Your task to perform on an android device: Show the shopping cart on walmart.com. Search for "macbook pro" on walmart.com, select the first entry, and add it to the cart. Image 0: 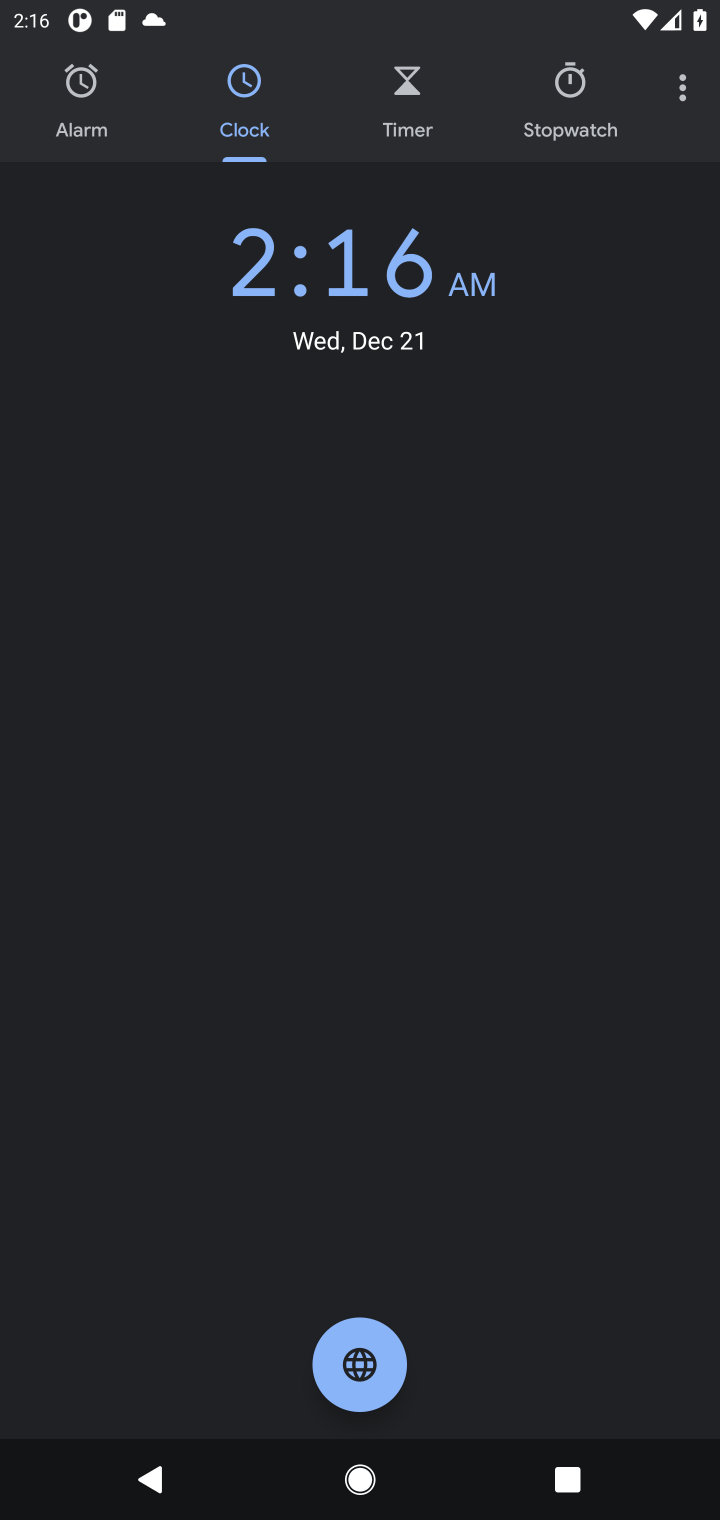
Step 0: press home button
Your task to perform on an android device: Show the shopping cart on walmart.com. Search for "macbook pro" on walmart.com, select the first entry, and add it to the cart. Image 1: 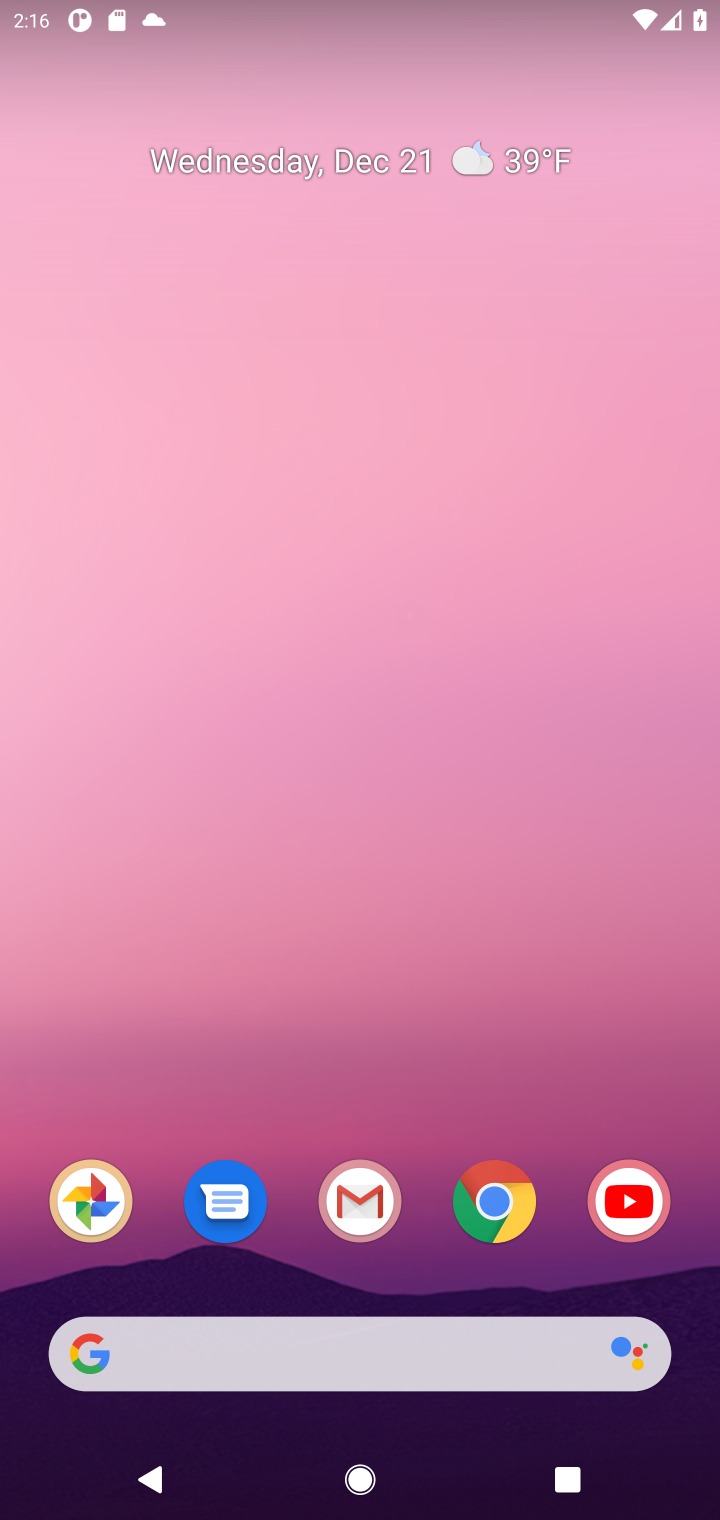
Step 1: click (496, 1204)
Your task to perform on an android device: Show the shopping cart on walmart.com. Search for "macbook pro" on walmart.com, select the first entry, and add it to the cart. Image 2: 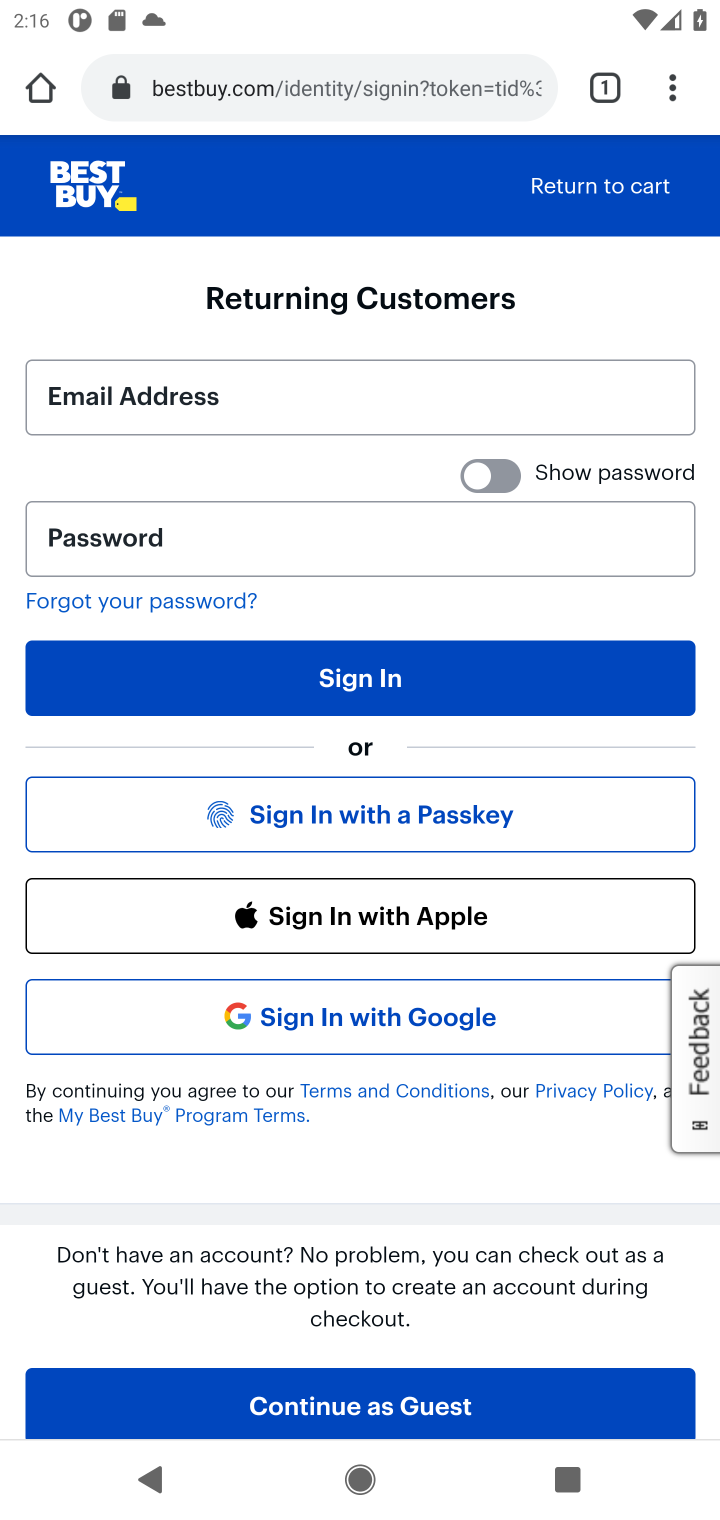
Step 2: click (265, 81)
Your task to perform on an android device: Show the shopping cart on walmart.com. Search for "macbook pro" on walmart.com, select the first entry, and add it to the cart. Image 3: 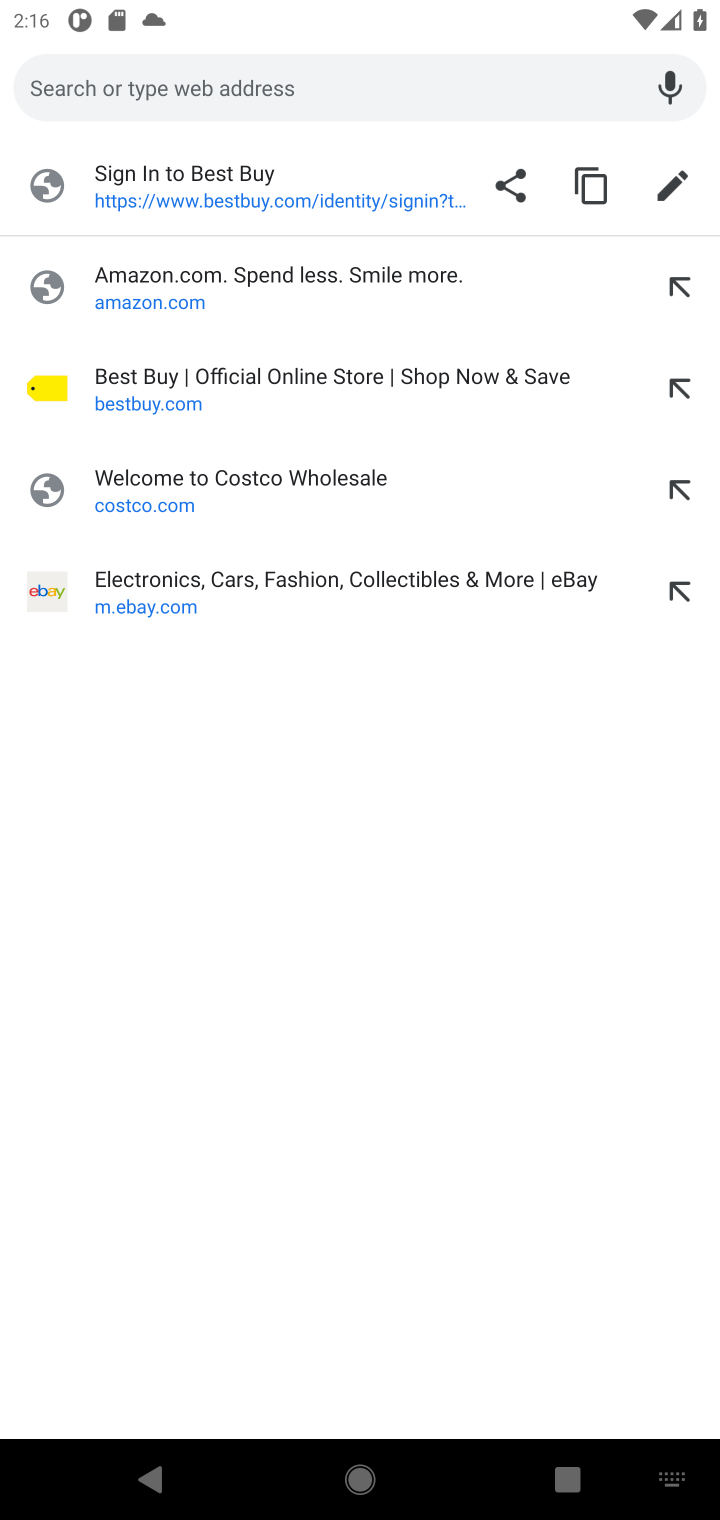
Step 3: type "walmart.com"
Your task to perform on an android device: Show the shopping cart on walmart.com. Search for "macbook pro" on walmart.com, select the first entry, and add it to the cart. Image 4: 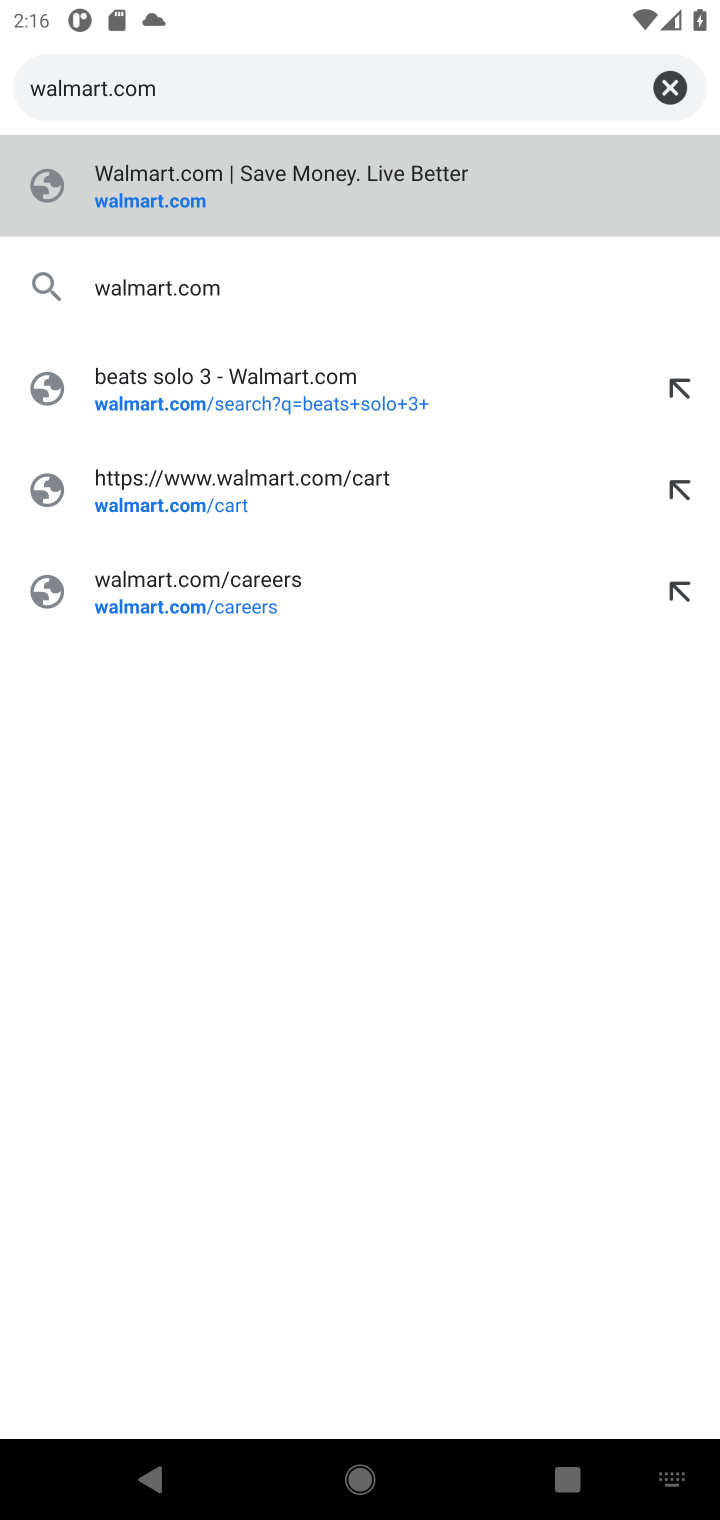
Step 4: click (181, 207)
Your task to perform on an android device: Show the shopping cart on walmart.com. Search for "macbook pro" on walmart.com, select the first entry, and add it to the cart. Image 5: 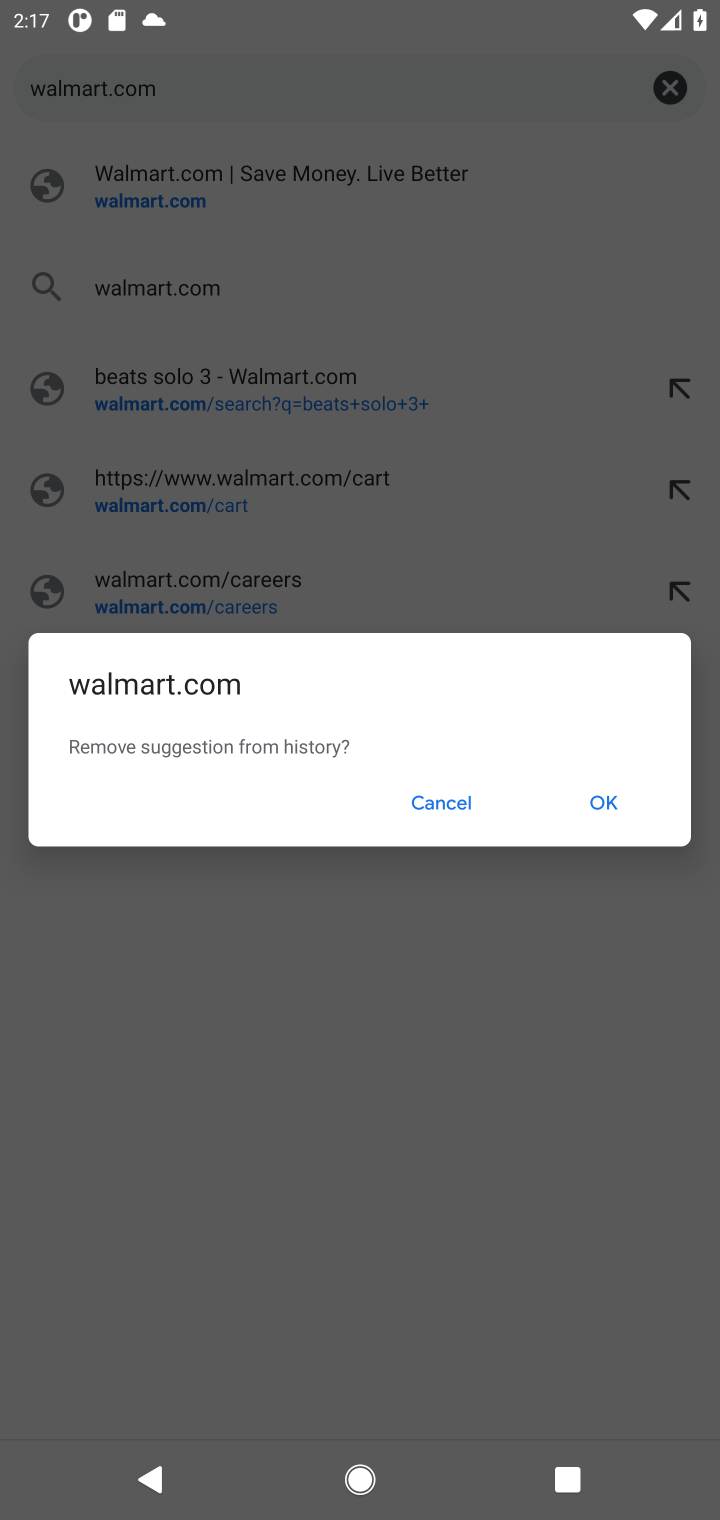
Step 5: click (438, 806)
Your task to perform on an android device: Show the shopping cart on walmart.com. Search for "macbook pro" on walmart.com, select the first entry, and add it to the cart. Image 6: 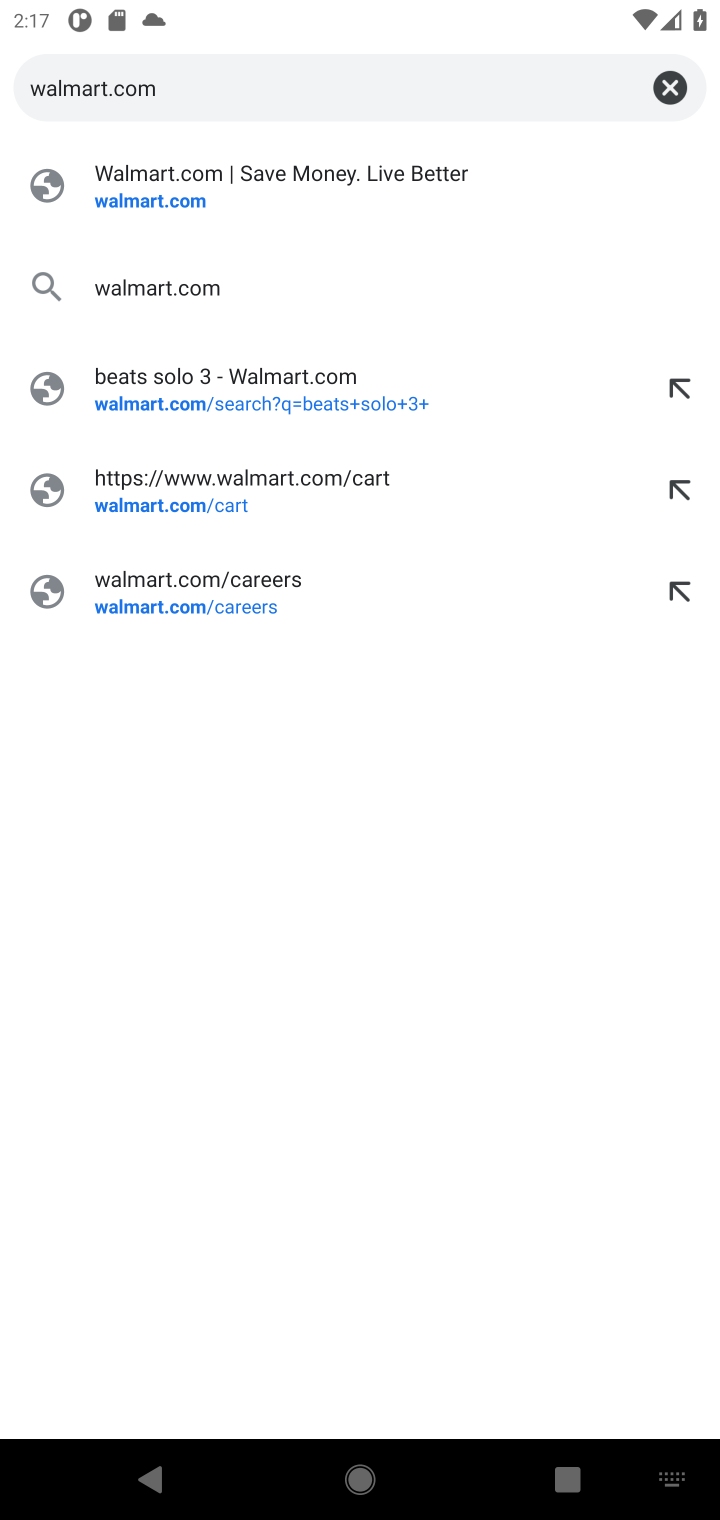
Step 6: click (114, 202)
Your task to perform on an android device: Show the shopping cart on walmart.com. Search for "macbook pro" on walmart.com, select the first entry, and add it to the cart. Image 7: 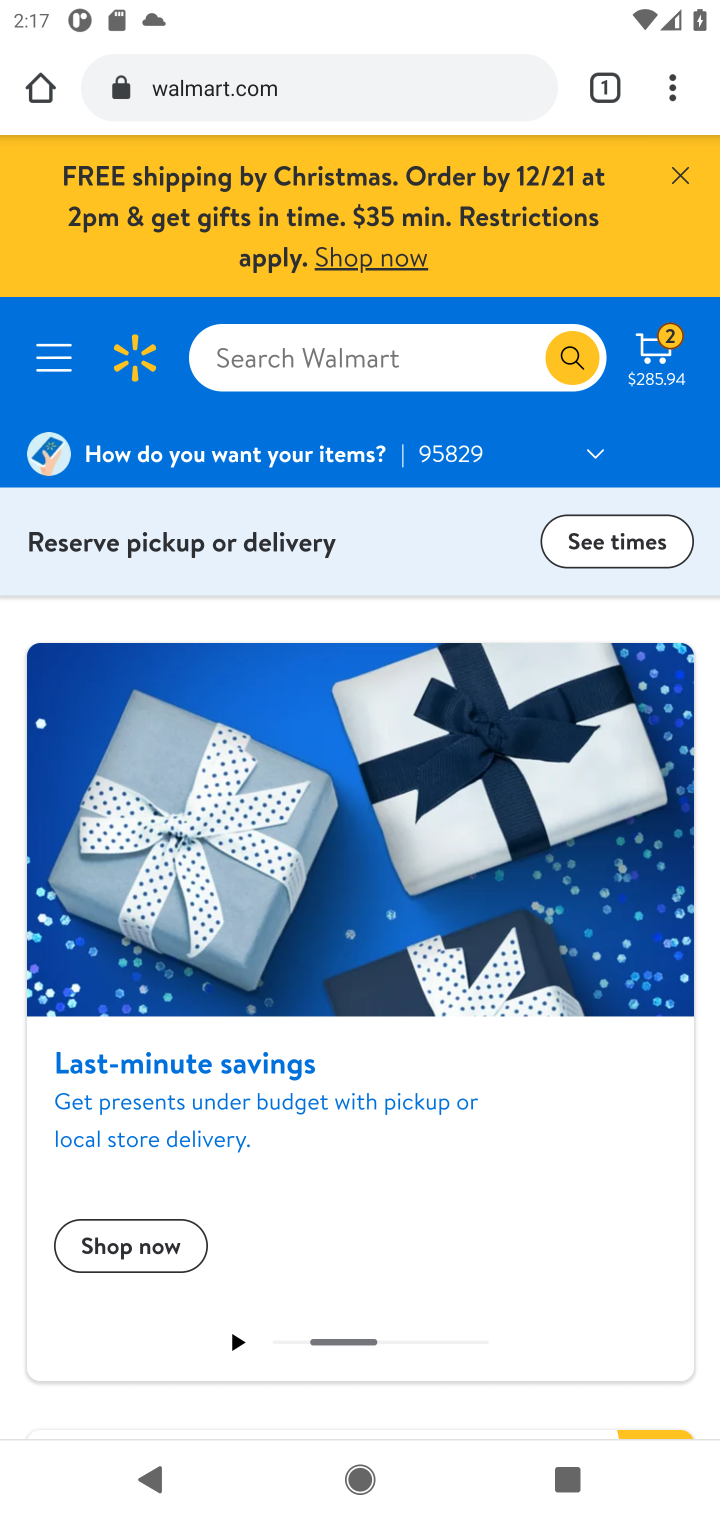
Step 7: click (649, 365)
Your task to perform on an android device: Show the shopping cart on walmart.com. Search for "macbook pro" on walmart.com, select the first entry, and add it to the cart. Image 8: 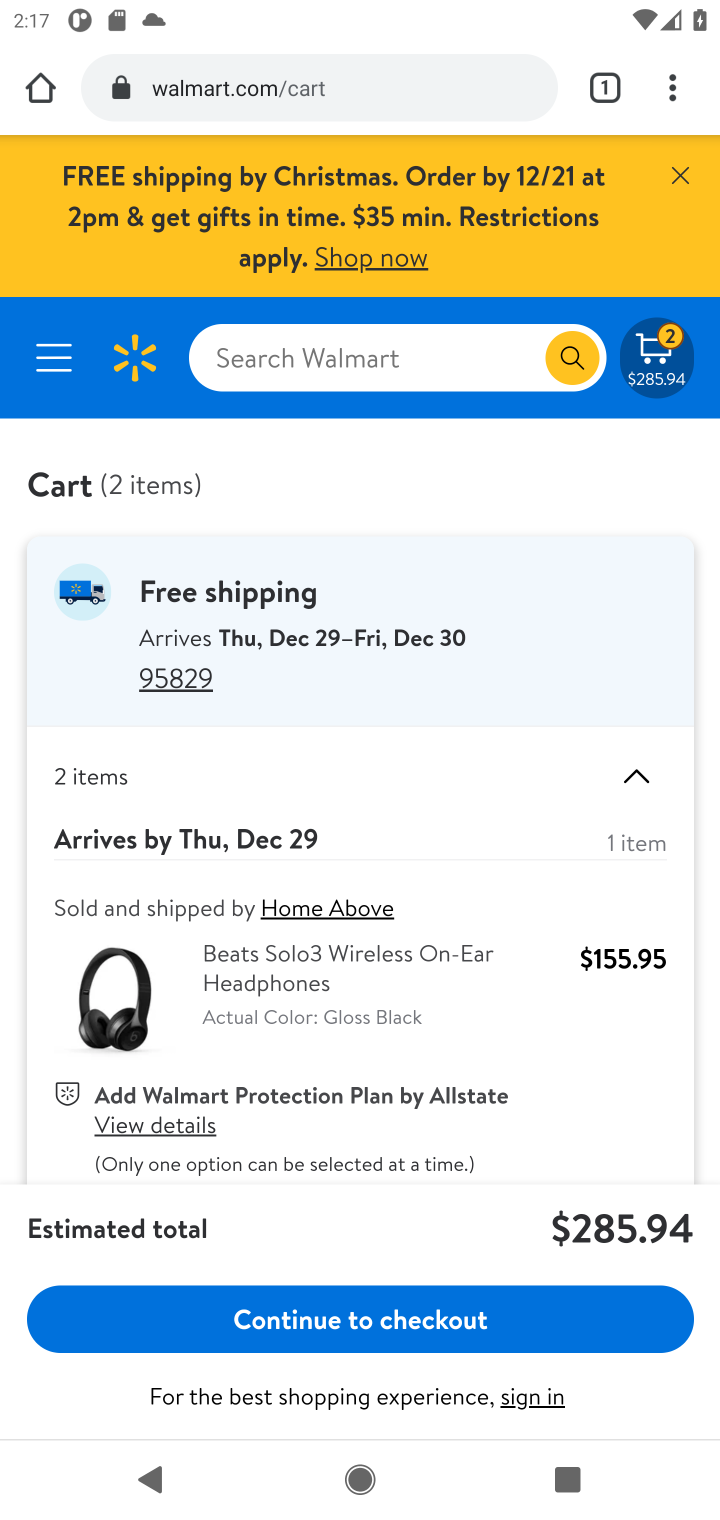
Step 8: click (279, 363)
Your task to perform on an android device: Show the shopping cart on walmart.com. Search for "macbook pro" on walmart.com, select the first entry, and add it to the cart. Image 9: 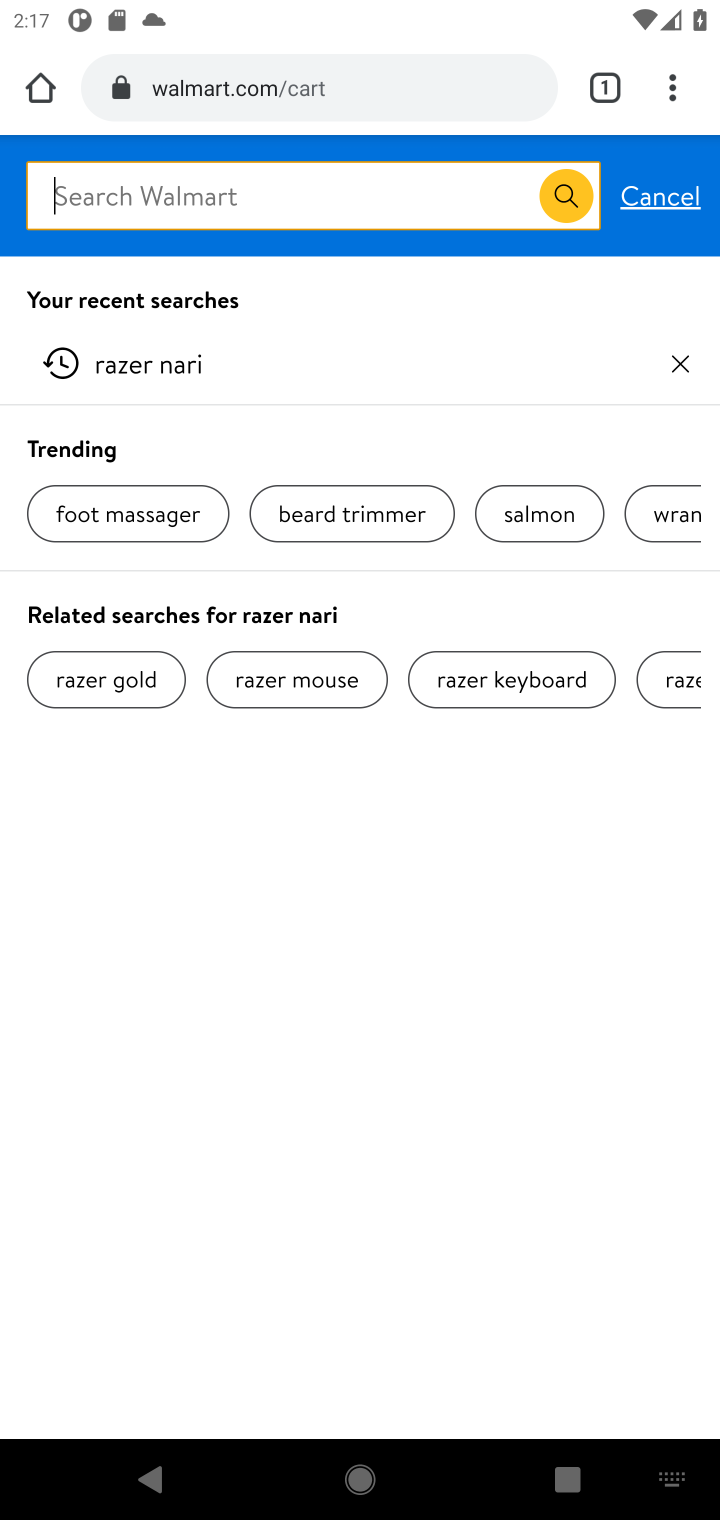
Step 9: type "macbook pro"
Your task to perform on an android device: Show the shopping cart on walmart.com. Search for "macbook pro" on walmart.com, select the first entry, and add it to the cart. Image 10: 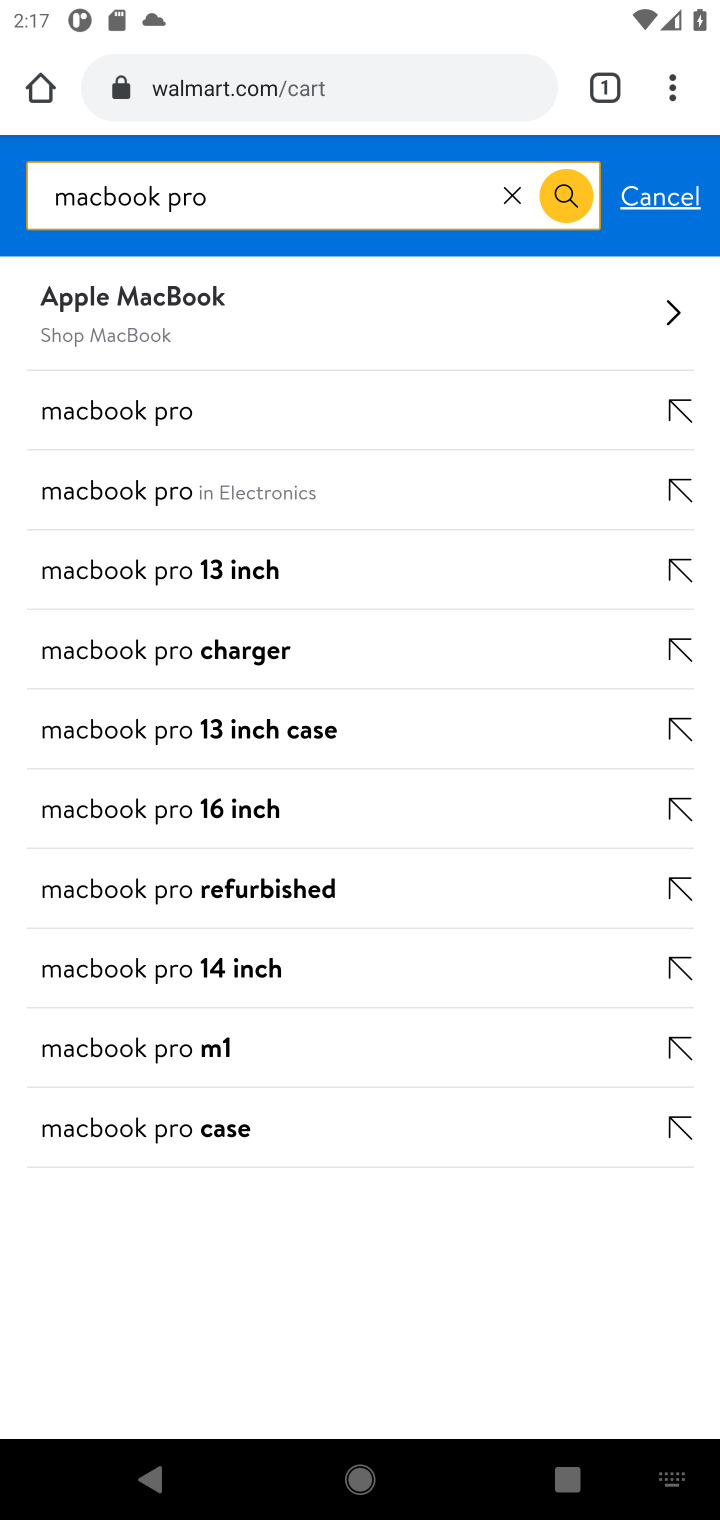
Step 10: click (143, 429)
Your task to perform on an android device: Show the shopping cart on walmart.com. Search for "macbook pro" on walmart.com, select the first entry, and add it to the cart. Image 11: 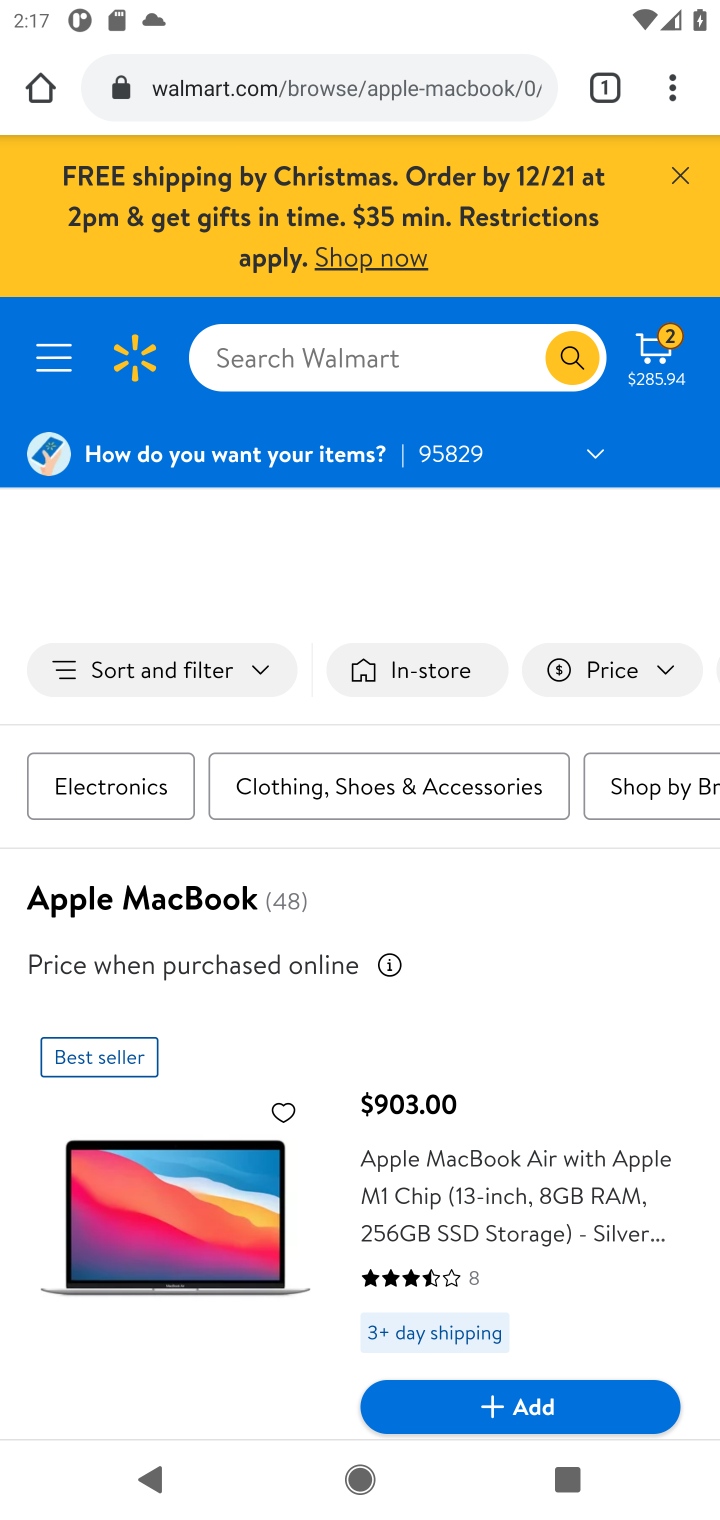
Step 11: task complete